Your task to perform on an android device: turn notification dots on Image 0: 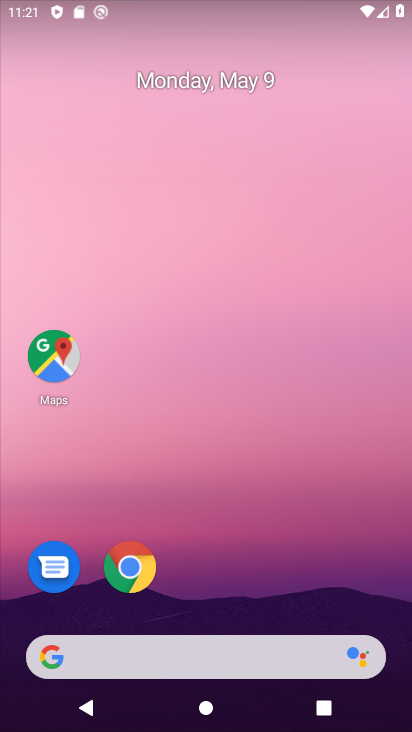
Step 0: drag from (193, 632) to (305, 170)
Your task to perform on an android device: turn notification dots on Image 1: 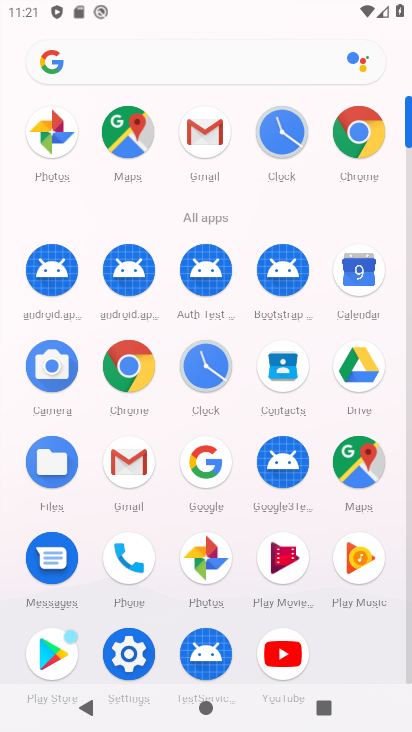
Step 1: click (141, 657)
Your task to perform on an android device: turn notification dots on Image 2: 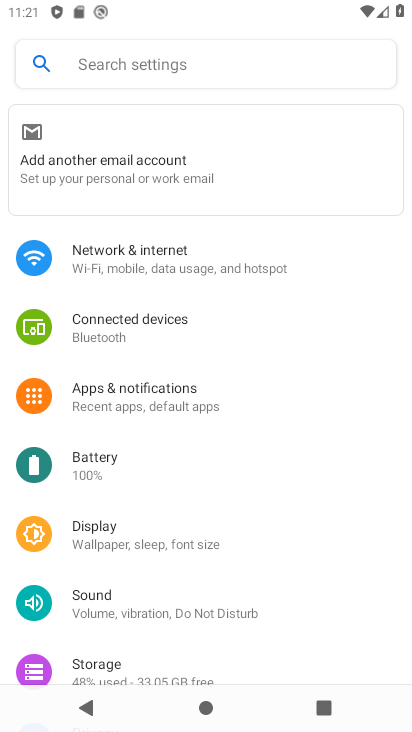
Step 2: click (162, 406)
Your task to perform on an android device: turn notification dots on Image 3: 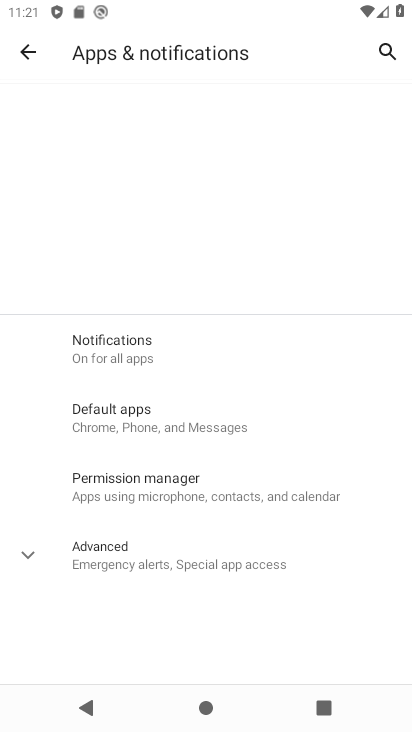
Step 3: click (161, 357)
Your task to perform on an android device: turn notification dots on Image 4: 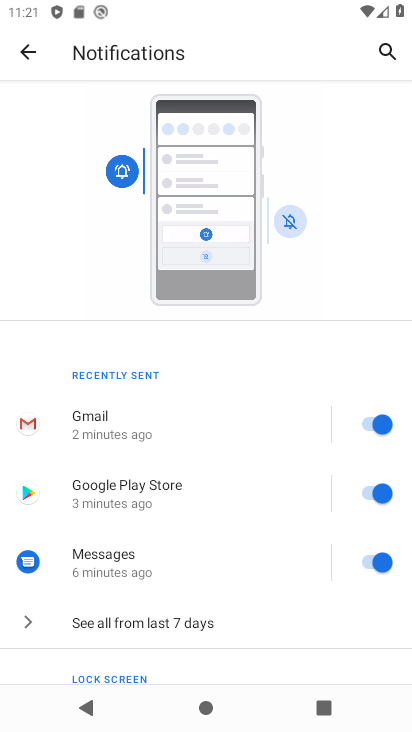
Step 4: drag from (196, 615) to (319, 208)
Your task to perform on an android device: turn notification dots on Image 5: 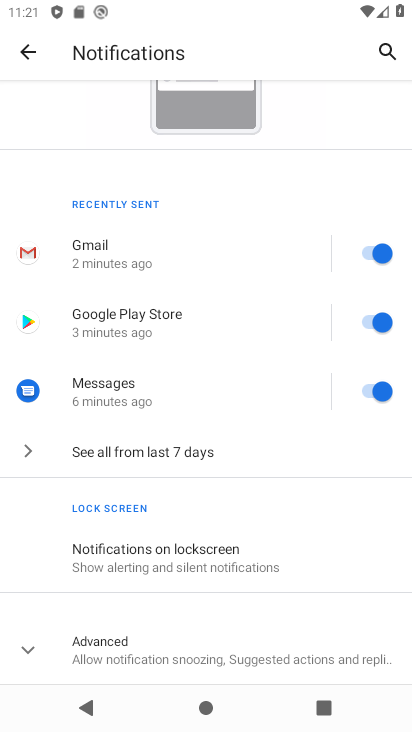
Step 5: click (189, 644)
Your task to perform on an android device: turn notification dots on Image 6: 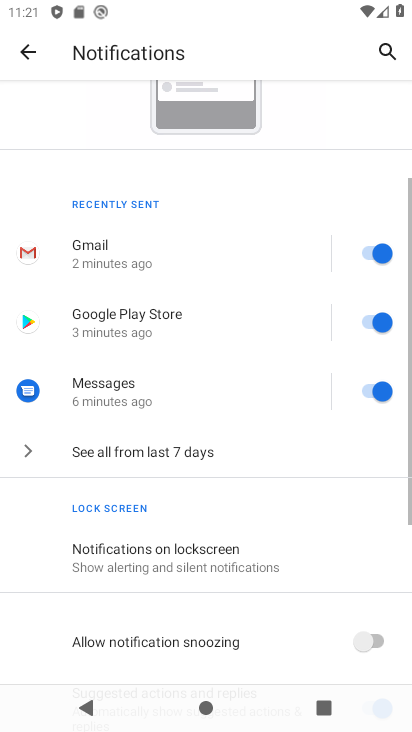
Step 6: task complete